Your task to perform on an android device: Open the calendar app, open the side menu, and click the "Day" option Image 0: 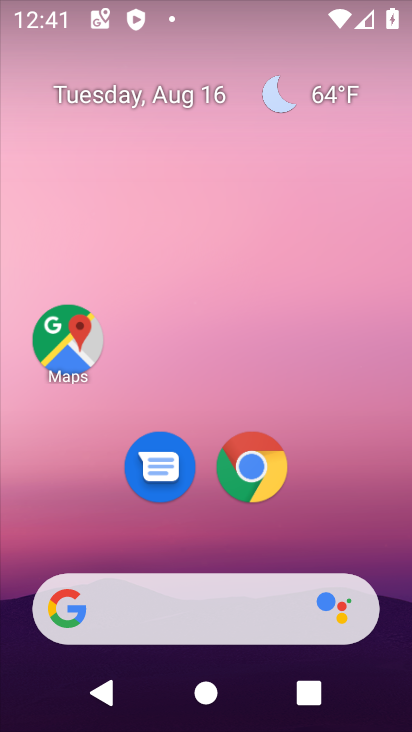
Step 0: press home button
Your task to perform on an android device: Open the calendar app, open the side menu, and click the "Day" option Image 1: 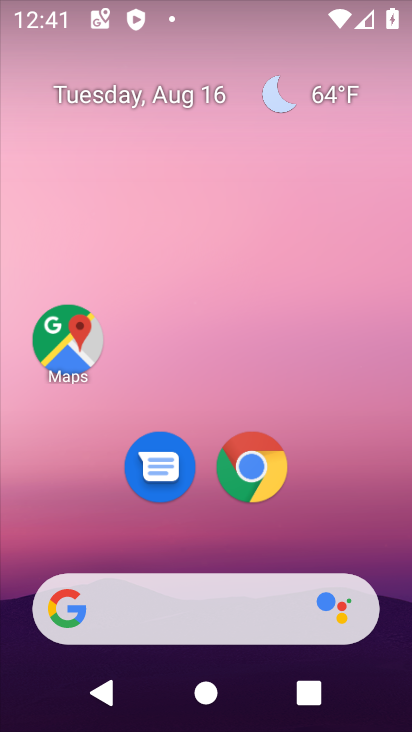
Step 1: drag from (374, 479) to (376, 103)
Your task to perform on an android device: Open the calendar app, open the side menu, and click the "Day" option Image 2: 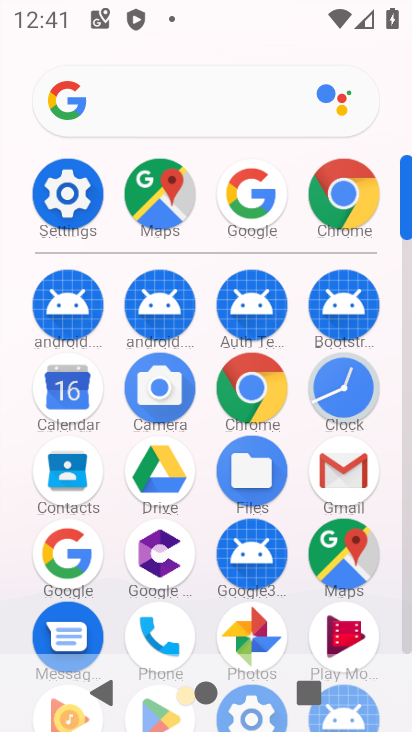
Step 2: click (65, 394)
Your task to perform on an android device: Open the calendar app, open the side menu, and click the "Day" option Image 3: 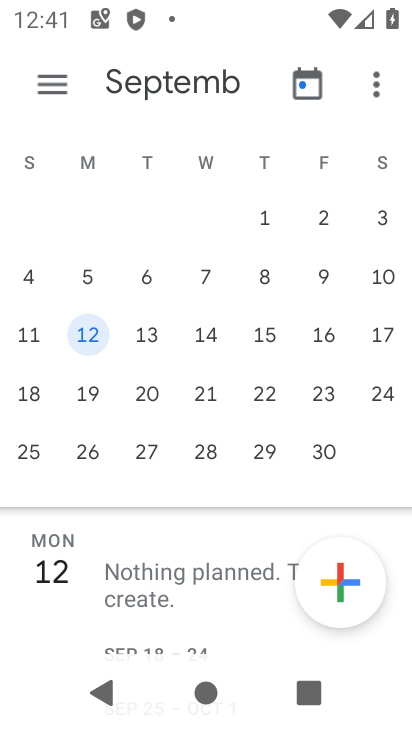
Step 3: click (52, 84)
Your task to perform on an android device: Open the calendar app, open the side menu, and click the "Day" option Image 4: 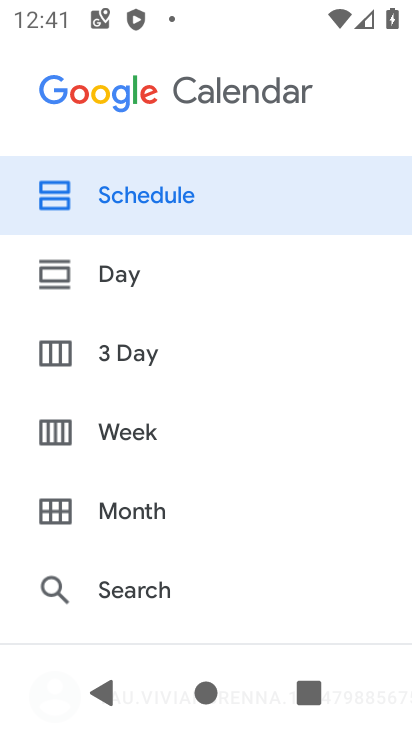
Step 4: click (126, 268)
Your task to perform on an android device: Open the calendar app, open the side menu, and click the "Day" option Image 5: 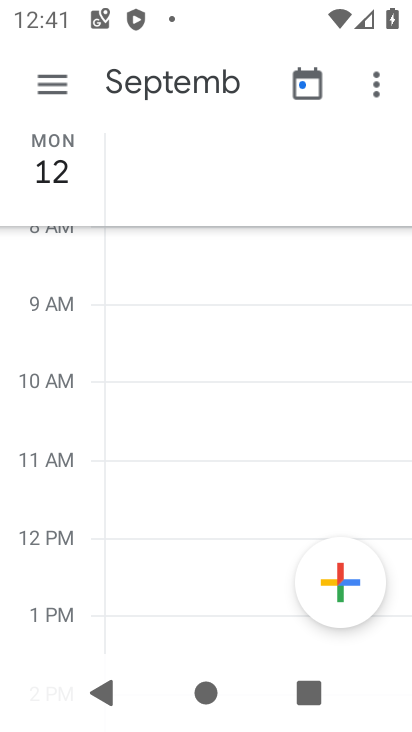
Step 5: task complete